Your task to perform on an android device: open a new tab in the chrome app Image 0: 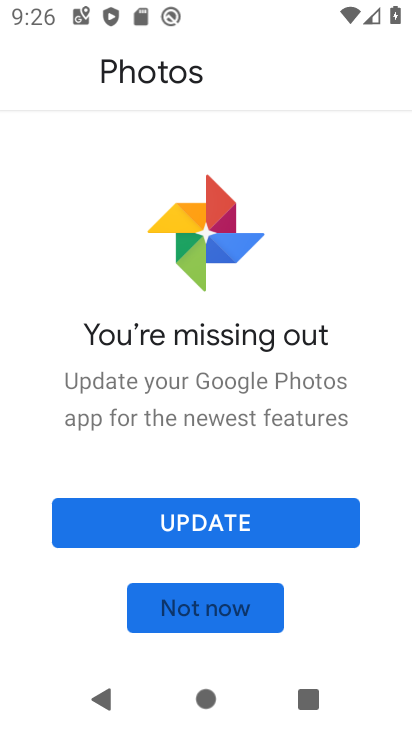
Step 0: press home button
Your task to perform on an android device: open a new tab in the chrome app Image 1: 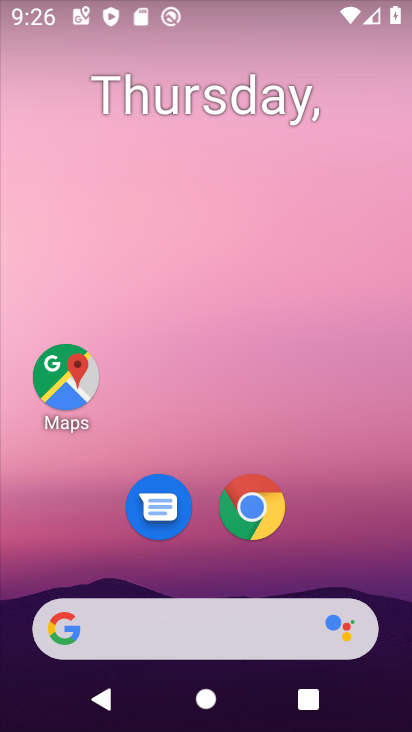
Step 1: click (264, 491)
Your task to perform on an android device: open a new tab in the chrome app Image 2: 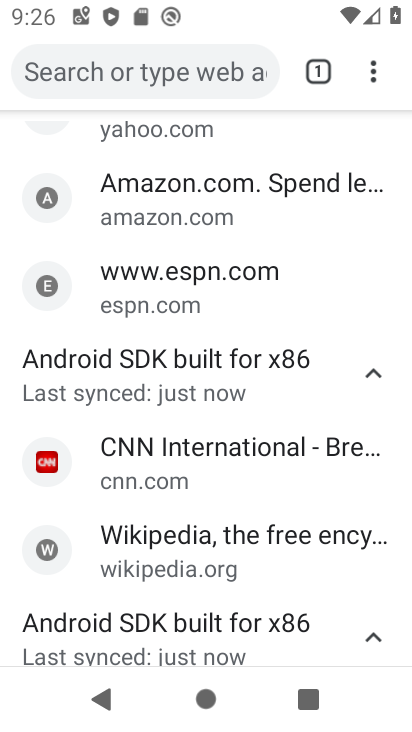
Step 2: click (370, 65)
Your task to perform on an android device: open a new tab in the chrome app Image 3: 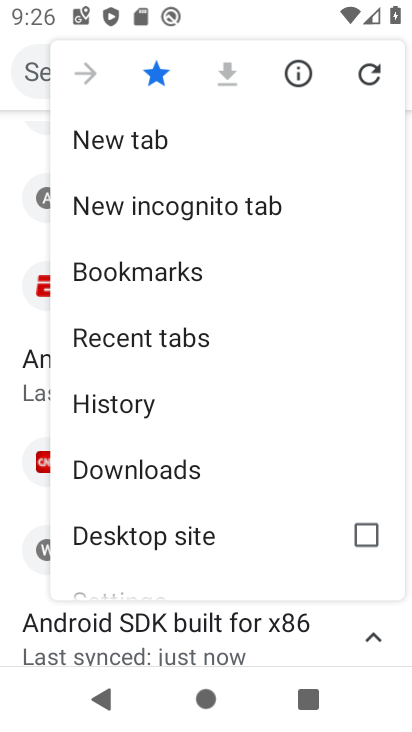
Step 3: click (131, 141)
Your task to perform on an android device: open a new tab in the chrome app Image 4: 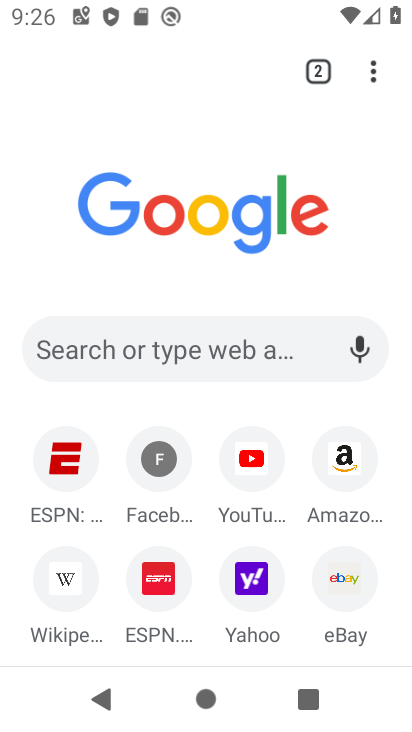
Step 4: task complete